Your task to perform on an android device: snooze an email in the gmail app Image 0: 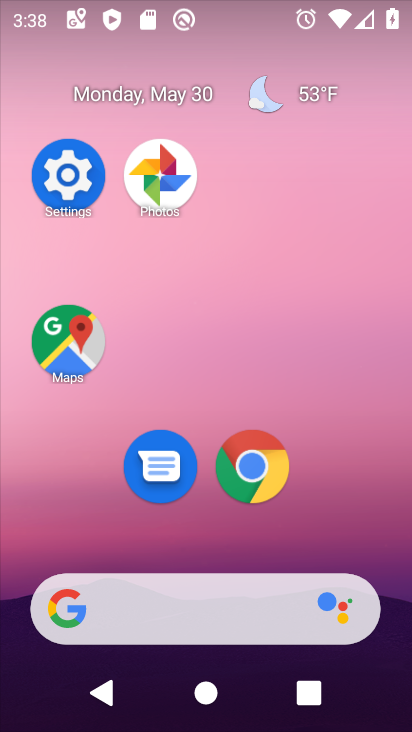
Step 0: drag from (309, 544) to (333, 140)
Your task to perform on an android device: snooze an email in the gmail app Image 1: 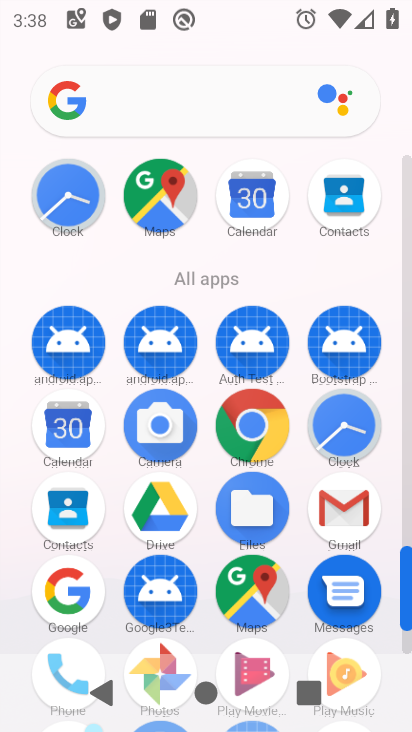
Step 1: click (356, 507)
Your task to perform on an android device: snooze an email in the gmail app Image 2: 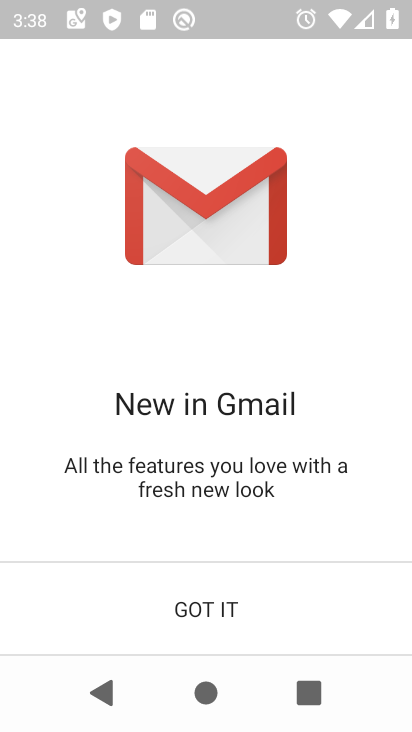
Step 2: click (159, 605)
Your task to perform on an android device: snooze an email in the gmail app Image 3: 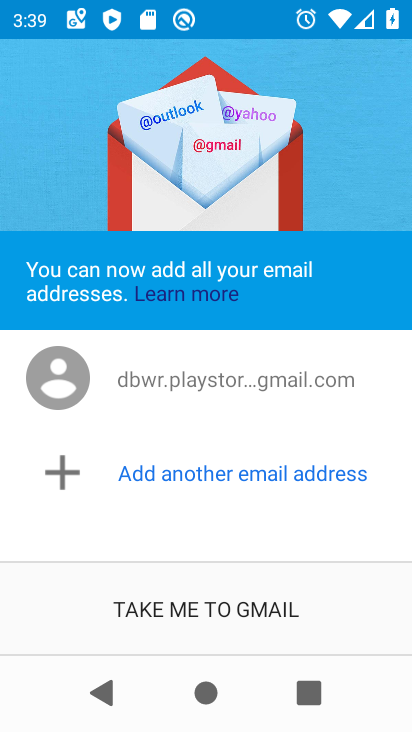
Step 3: click (159, 605)
Your task to perform on an android device: snooze an email in the gmail app Image 4: 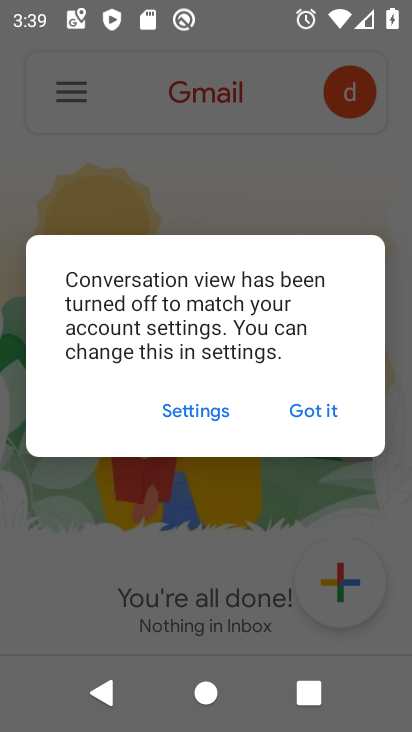
Step 4: click (352, 408)
Your task to perform on an android device: snooze an email in the gmail app Image 5: 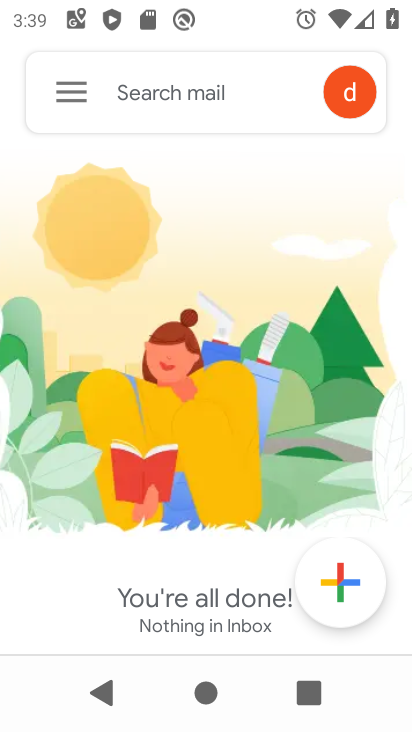
Step 5: click (89, 92)
Your task to perform on an android device: snooze an email in the gmail app Image 6: 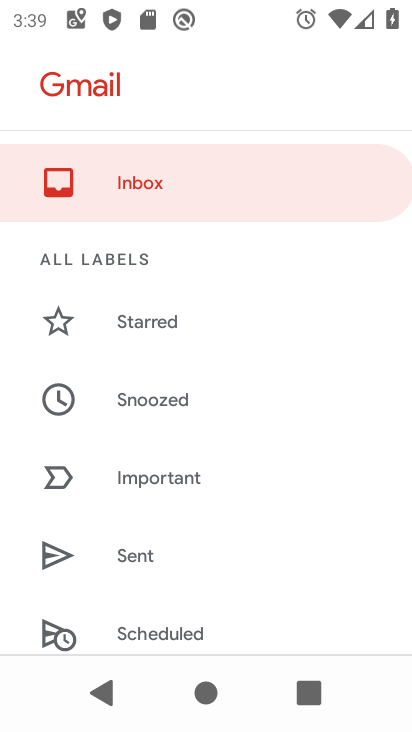
Step 6: drag from (224, 531) to (206, 71)
Your task to perform on an android device: snooze an email in the gmail app Image 7: 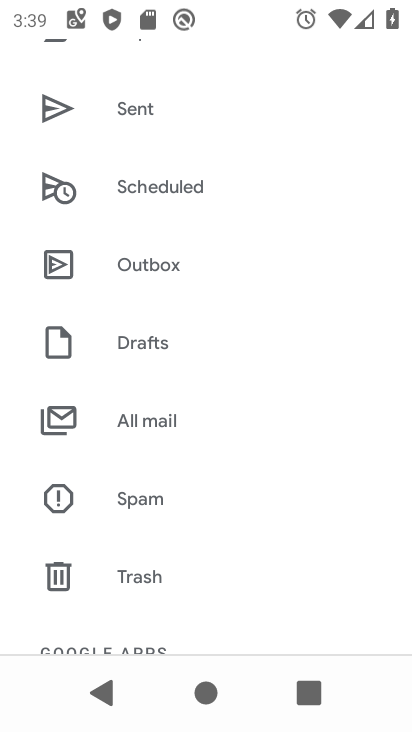
Step 7: drag from (249, 506) to (208, 207)
Your task to perform on an android device: snooze an email in the gmail app Image 8: 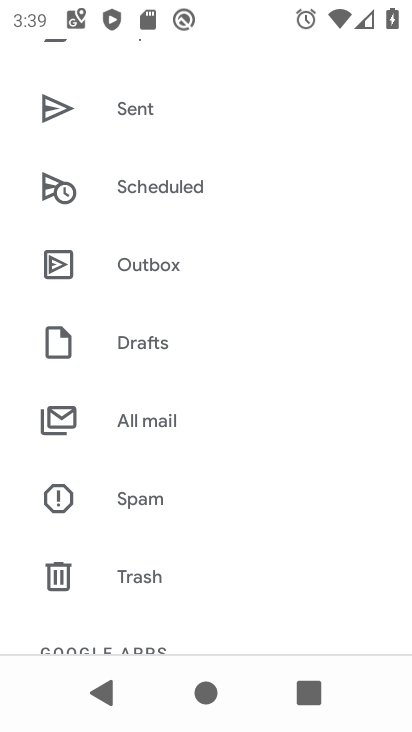
Step 8: click (207, 428)
Your task to perform on an android device: snooze an email in the gmail app Image 9: 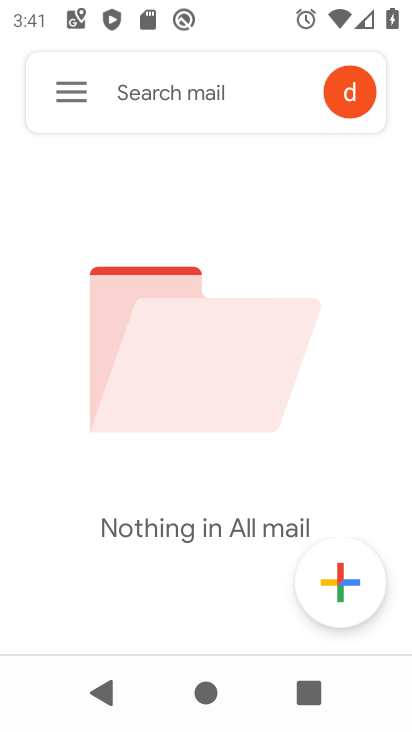
Step 9: task complete